Your task to perform on an android device: Show me productivity apps on the Play Store Image 0: 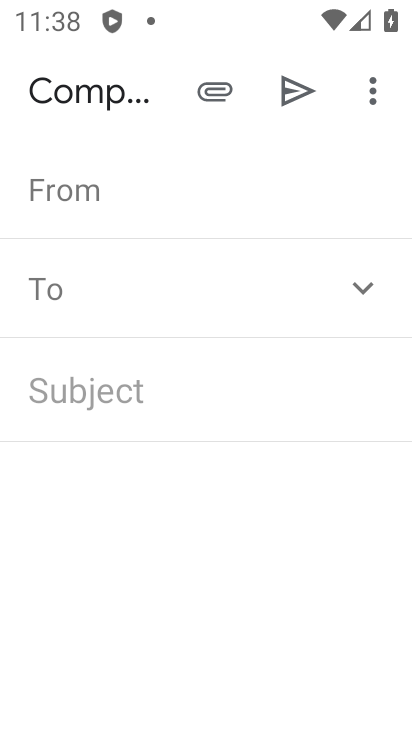
Step 0: drag from (369, 557) to (285, 83)
Your task to perform on an android device: Show me productivity apps on the Play Store Image 1: 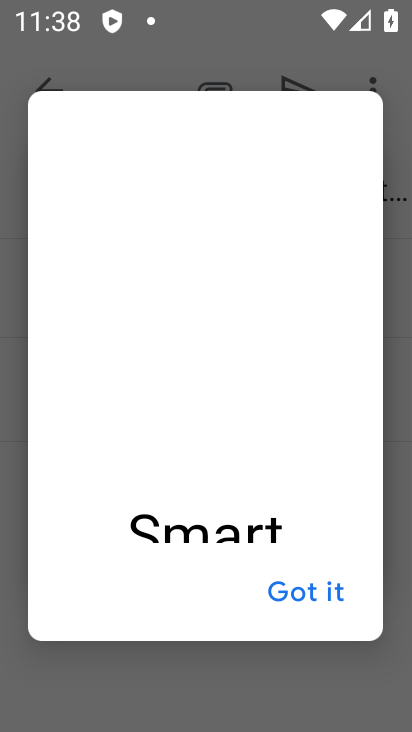
Step 1: press home button
Your task to perform on an android device: Show me productivity apps on the Play Store Image 2: 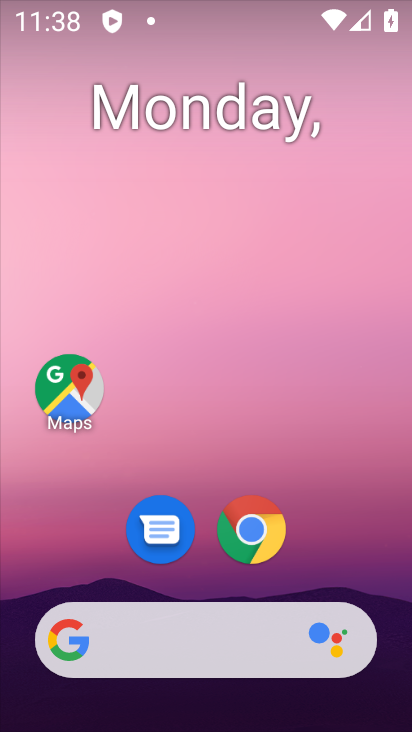
Step 2: drag from (352, 587) to (295, 21)
Your task to perform on an android device: Show me productivity apps on the Play Store Image 3: 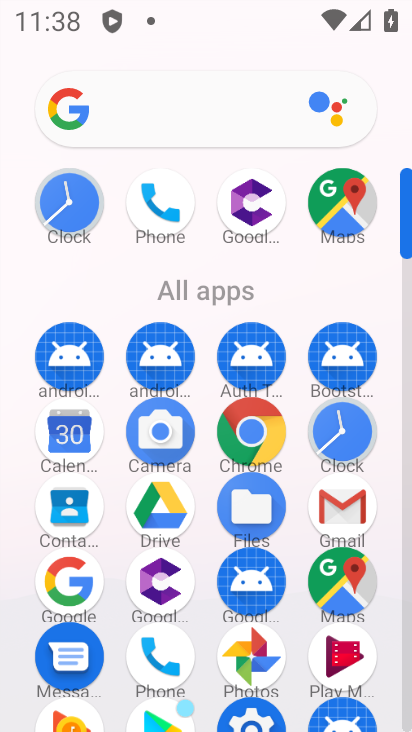
Step 3: click (400, 667)
Your task to perform on an android device: Show me productivity apps on the Play Store Image 4: 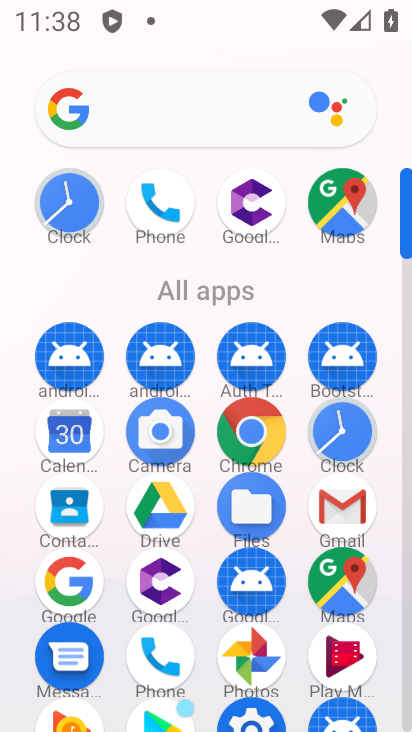
Step 4: click (404, 671)
Your task to perform on an android device: Show me productivity apps on the Play Store Image 5: 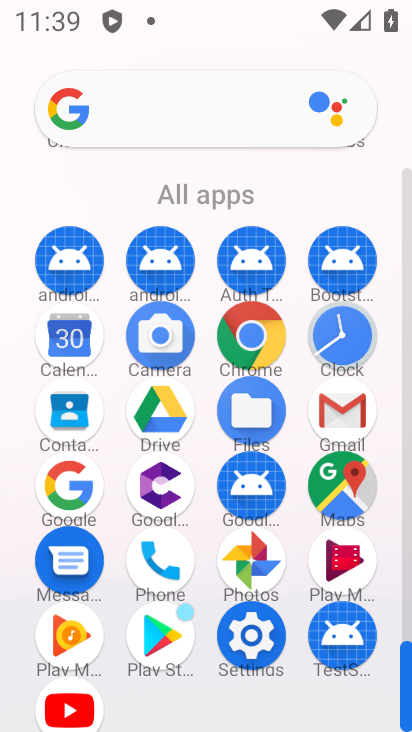
Step 5: drag from (196, 595) to (199, 411)
Your task to perform on an android device: Show me productivity apps on the Play Store Image 6: 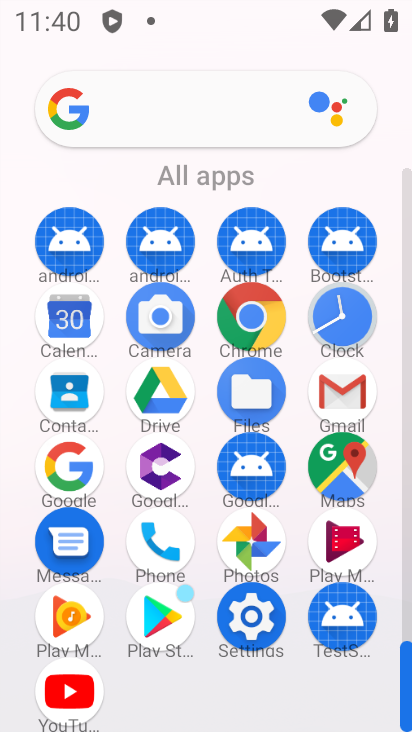
Step 6: drag from (341, 692) to (347, 611)
Your task to perform on an android device: Show me productivity apps on the Play Store Image 7: 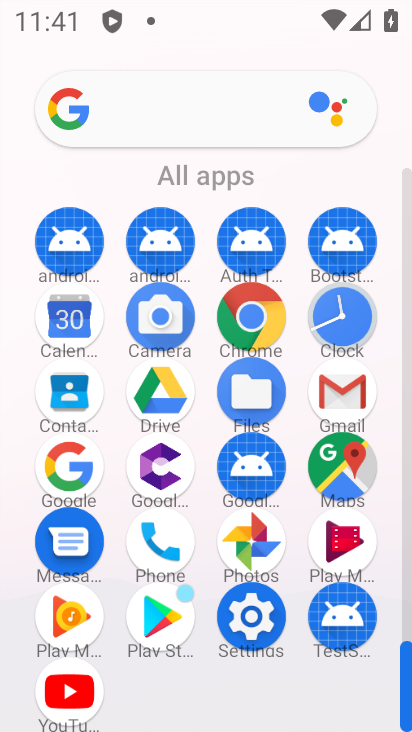
Step 7: click (158, 616)
Your task to perform on an android device: Show me productivity apps on the Play Store Image 8: 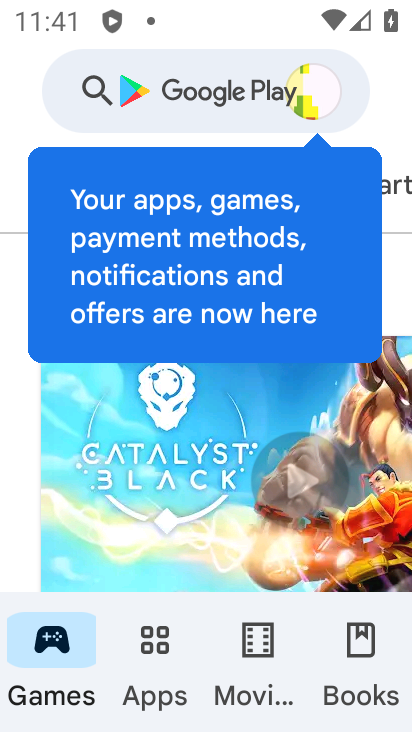
Step 8: click (205, 96)
Your task to perform on an android device: Show me productivity apps on the Play Store Image 9: 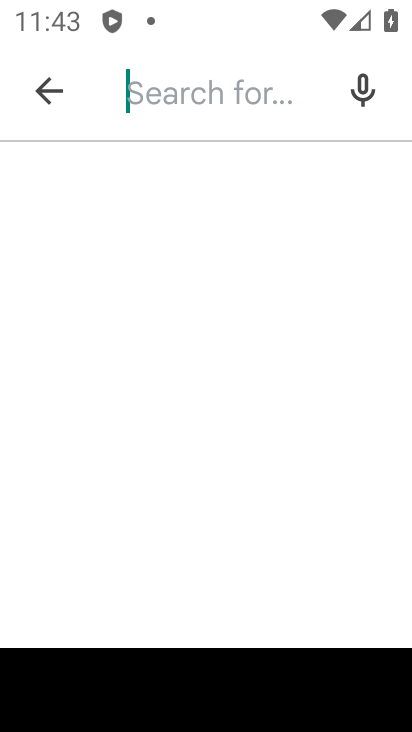
Step 9: type " productivity apps"
Your task to perform on an android device: Show me productivity apps on the Play Store Image 10: 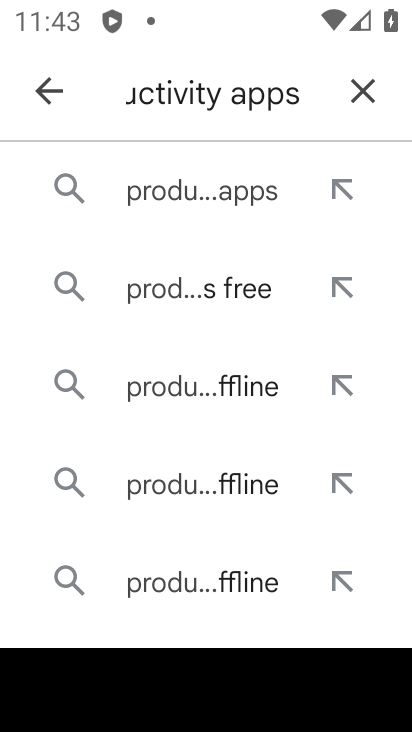
Step 10: click (249, 159)
Your task to perform on an android device: Show me productivity apps on the Play Store Image 11: 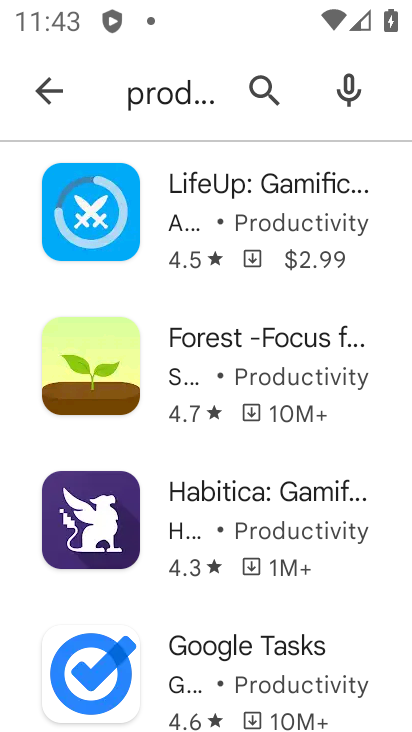
Step 11: task complete